Your task to perform on an android device: read, delete, or share a saved page in the chrome app Image 0: 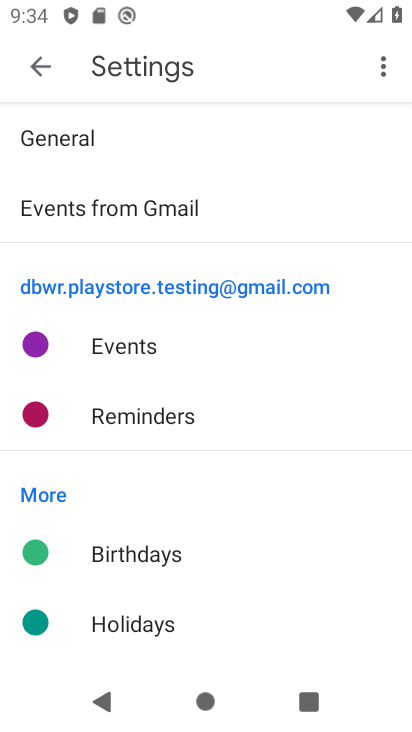
Step 0: press home button
Your task to perform on an android device: read, delete, or share a saved page in the chrome app Image 1: 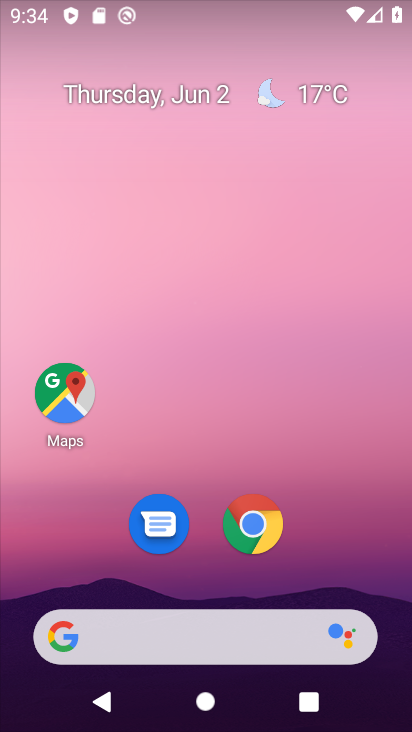
Step 1: click (267, 536)
Your task to perform on an android device: read, delete, or share a saved page in the chrome app Image 2: 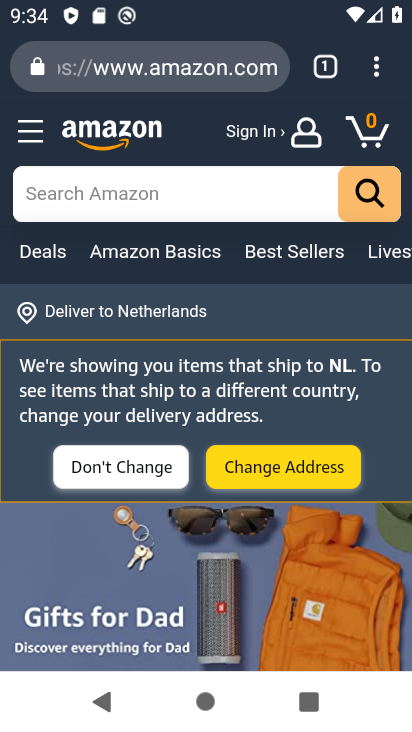
Step 2: click (374, 66)
Your task to perform on an android device: read, delete, or share a saved page in the chrome app Image 3: 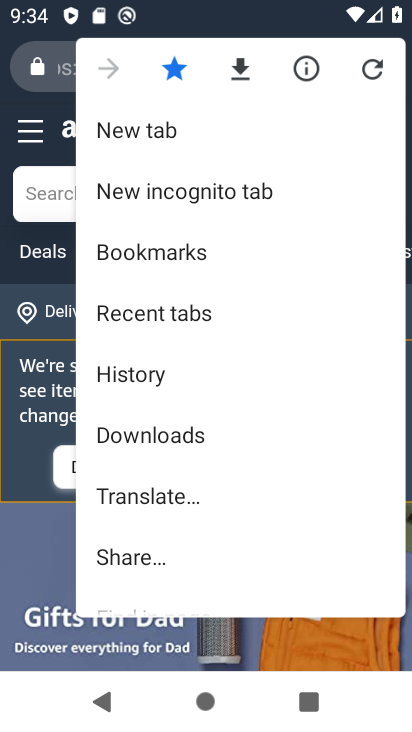
Step 3: click (154, 436)
Your task to perform on an android device: read, delete, or share a saved page in the chrome app Image 4: 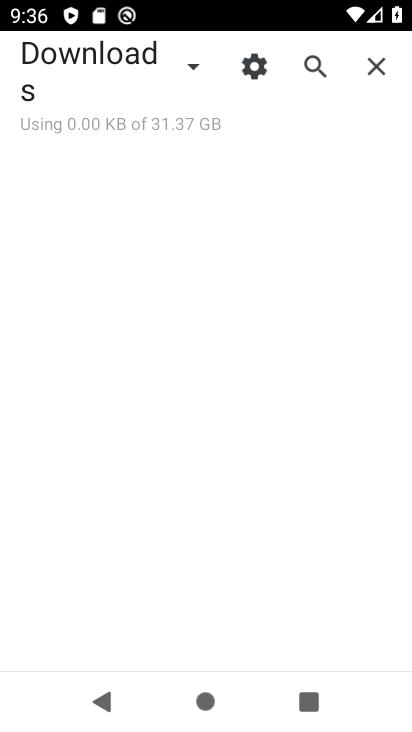
Step 4: task complete